Your task to perform on an android device: install app "Cash App" Image 0: 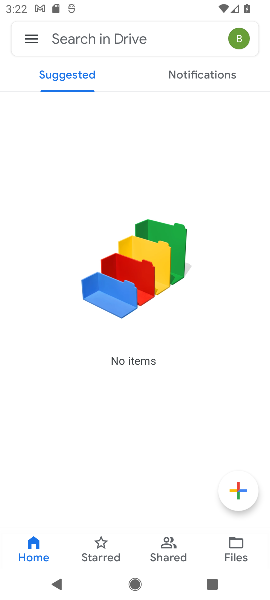
Step 0: press home button
Your task to perform on an android device: install app "Cash App" Image 1: 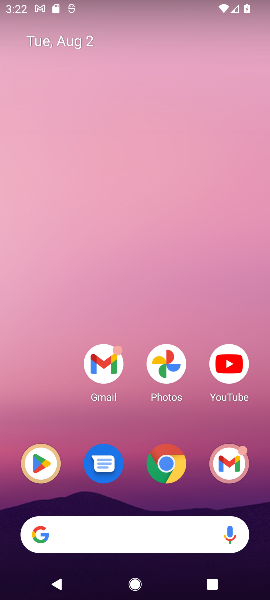
Step 1: click (41, 461)
Your task to perform on an android device: install app "Cash App" Image 2: 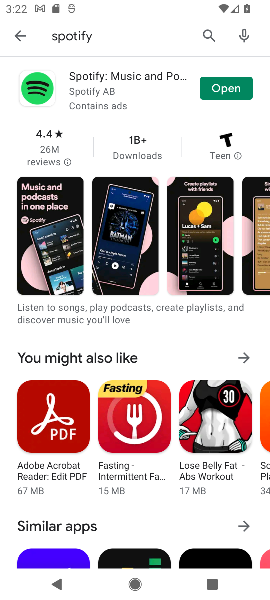
Step 2: click (204, 33)
Your task to perform on an android device: install app "Cash App" Image 3: 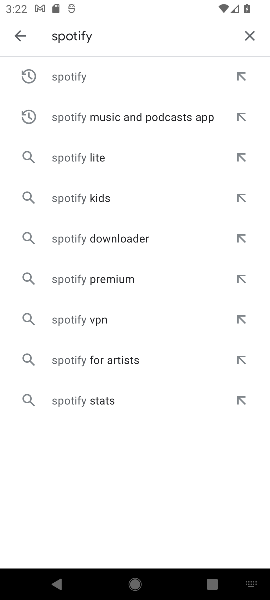
Step 3: click (242, 32)
Your task to perform on an android device: install app "Cash App" Image 4: 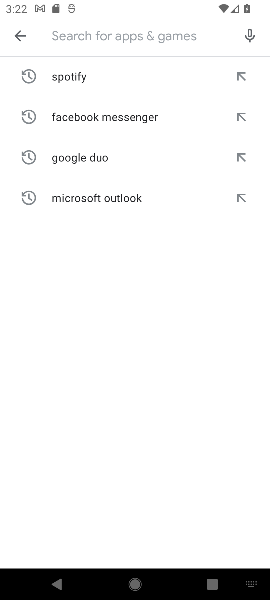
Step 4: type "Cash App"
Your task to perform on an android device: install app "Cash App" Image 5: 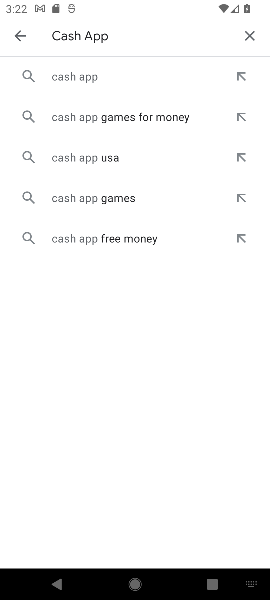
Step 5: click (83, 76)
Your task to perform on an android device: install app "Cash App" Image 6: 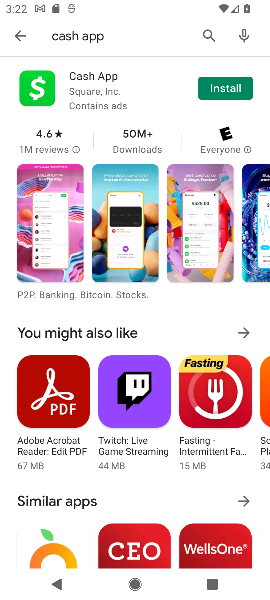
Step 6: click (229, 87)
Your task to perform on an android device: install app "Cash App" Image 7: 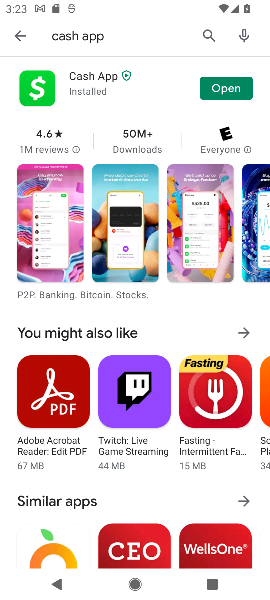
Step 7: task complete